Your task to perform on an android device: empty trash in google photos Image 0: 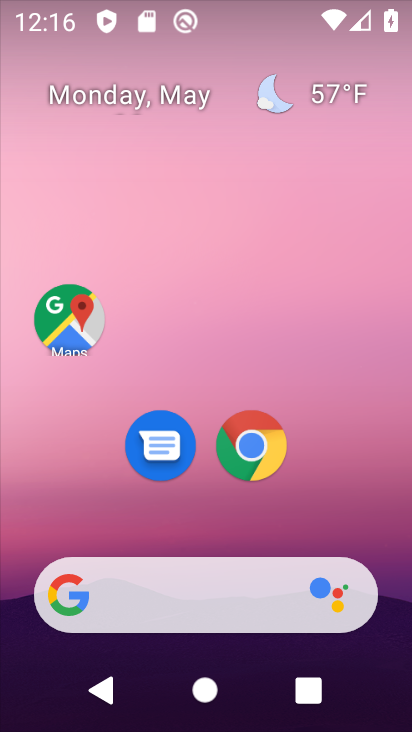
Step 0: drag from (391, 609) to (262, 43)
Your task to perform on an android device: empty trash in google photos Image 1: 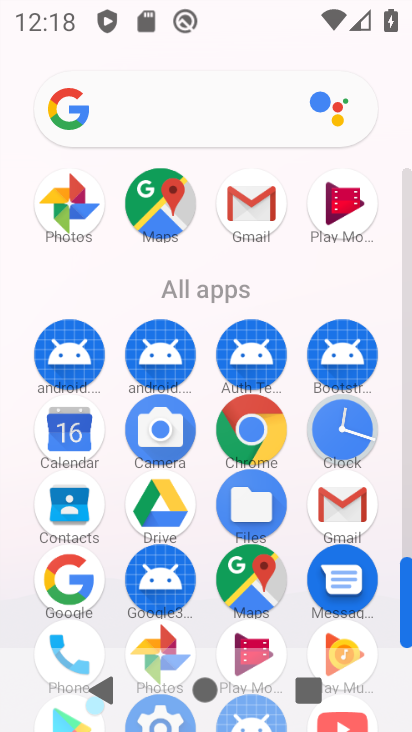
Step 1: drag from (264, 647) to (274, 113)
Your task to perform on an android device: empty trash in google photos Image 2: 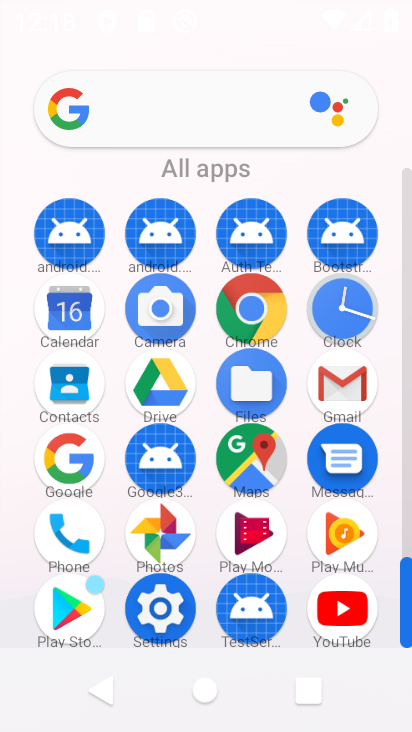
Step 2: click (170, 536)
Your task to perform on an android device: empty trash in google photos Image 3: 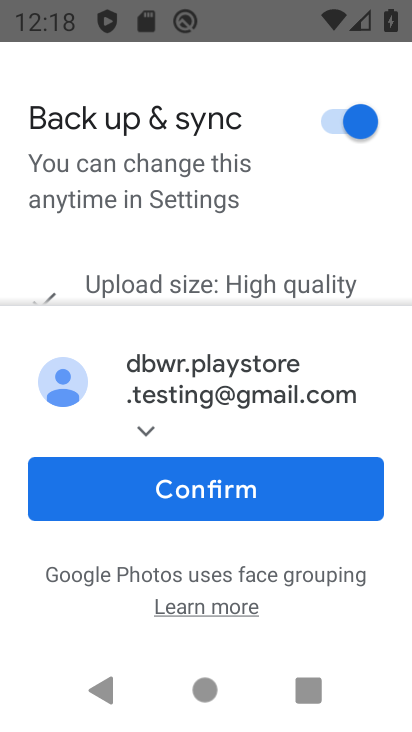
Step 3: click (279, 474)
Your task to perform on an android device: empty trash in google photos Image 4: 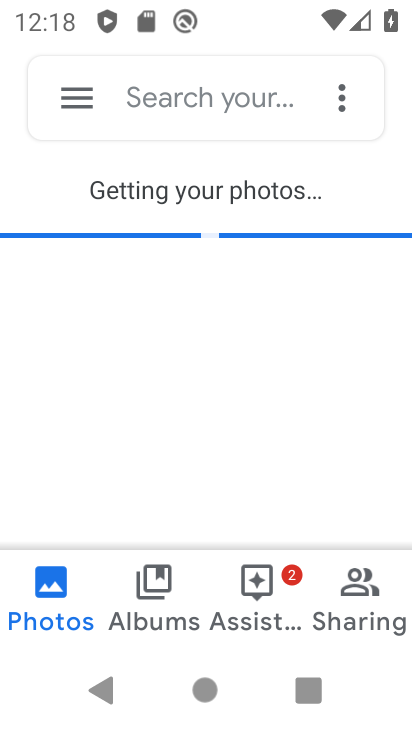
Step 4: click (93, 96)
Your task to perform on an android device: empty trash in google photos Image 5: 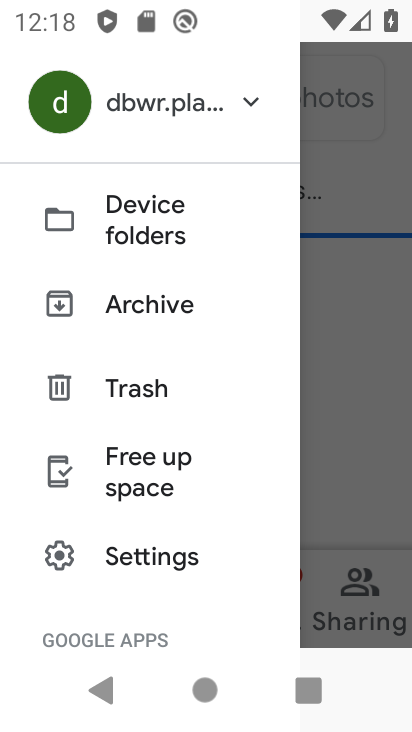
Step 5: drag from (134, 523) to (173, 182)
Your task to perform on an android device: empty trash in google photos Image 6: 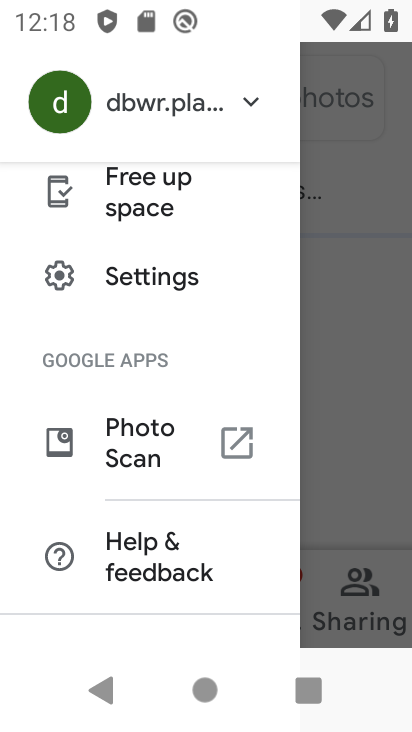
Step 6: drag from (253, 208) to (209, 559)
Your task to perform on an android device: empty trash in google photos Image 7: 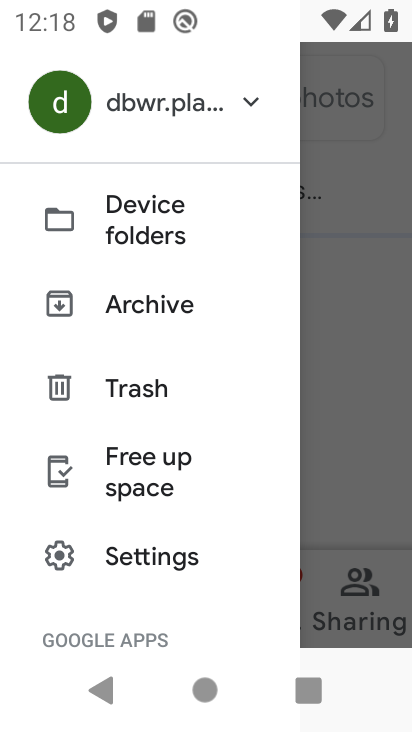
Step 7: click (160, 394)
Your task to perform on an android device: empty trash in google photos Image 8: 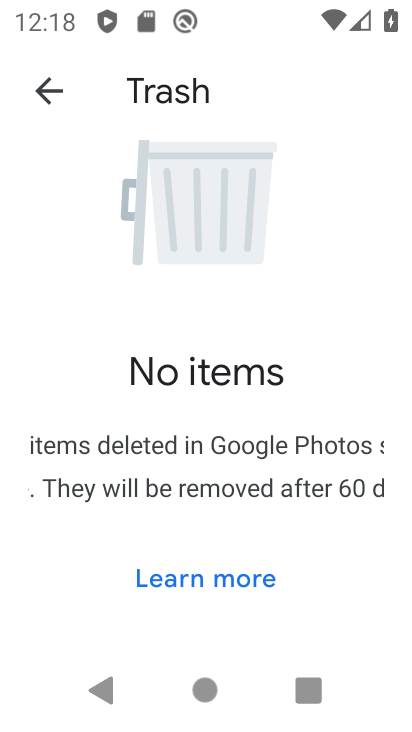
Step 8: task complete